Your task to perform on an android device: Open Amazon Image 0: 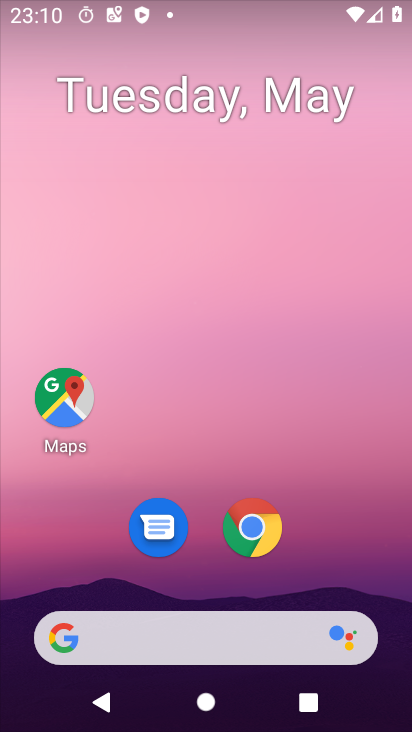
Step 0: click (290, 284)
Your task to perform on an android device: Open Amazon Image 1: 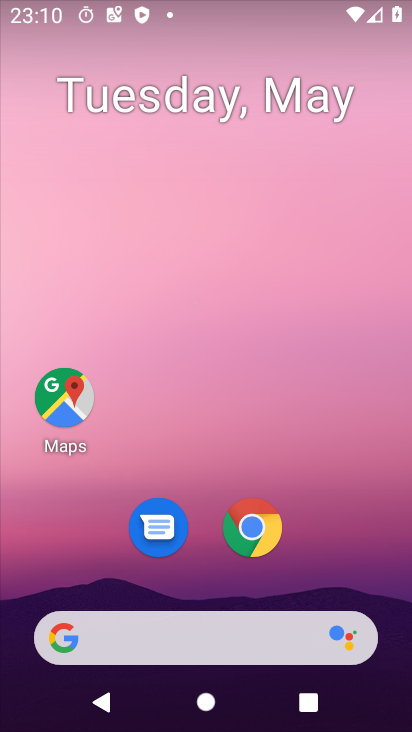
Step 1: drag from (215, 585) to (215, 152)
Your task to perform on an android device: Open Amazon Image 2: 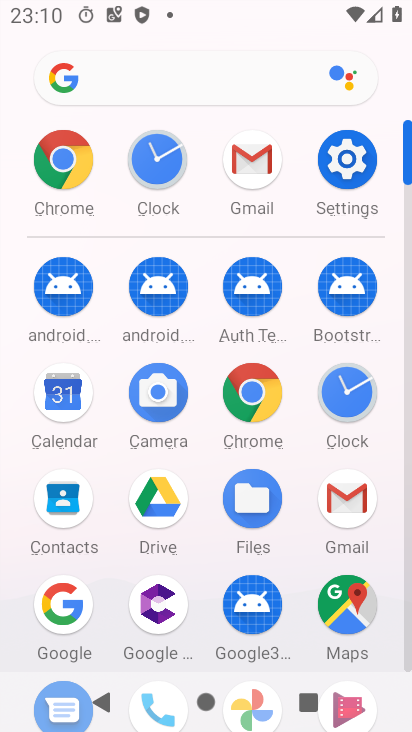
Step 2: click (157, 80)
Your task to perform on an android device: Open Amazon Image 3: 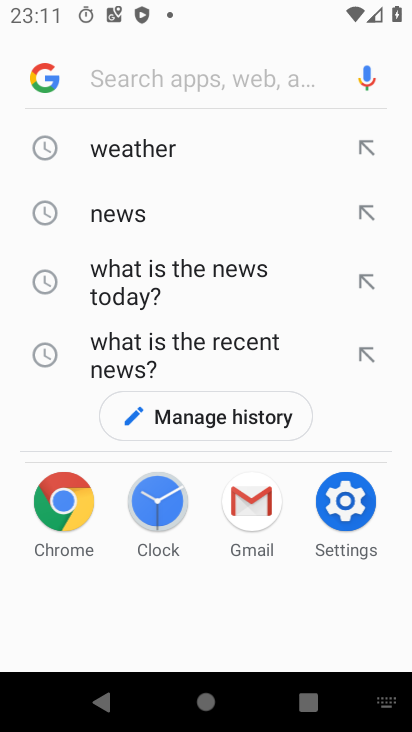
Step 3: type "amazon"
Your task to perform on an android device: Open Amazon Image 4: 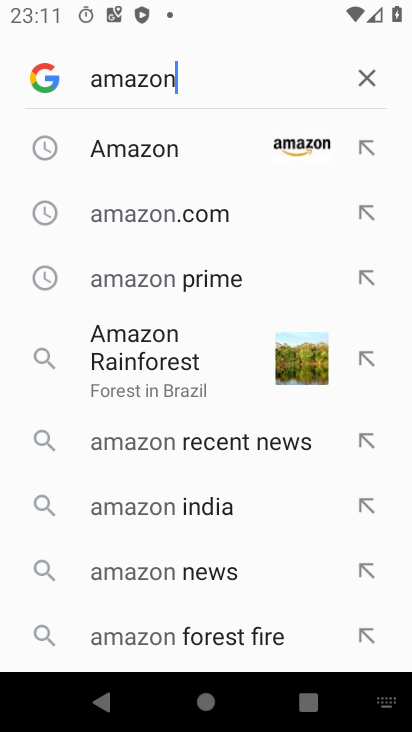
Step 4: click (139, 135)
Your task to perform on an android device: Open Amazon Image 5: 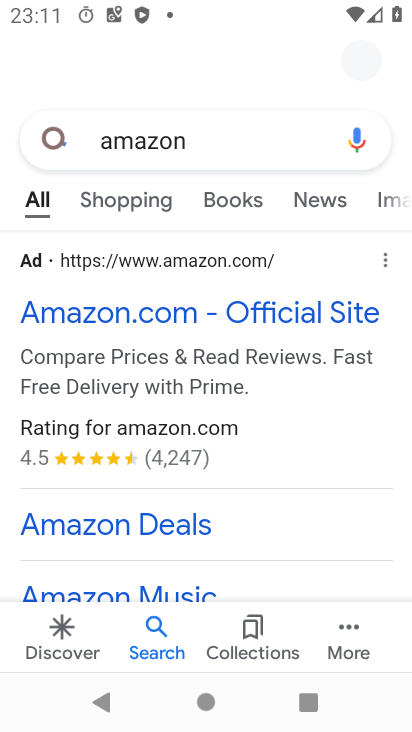
Step 5: drag from (129, 561) to (246, 119)
Your task to perform on an android device: Open Amazon Image 6: 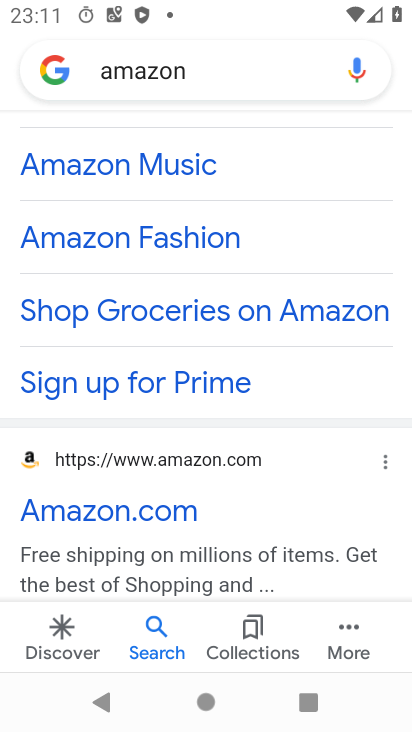
Step 6: drag from (207, 537) to (343, 206)
Your task to perform on an android device: Open Amazon Image 7: 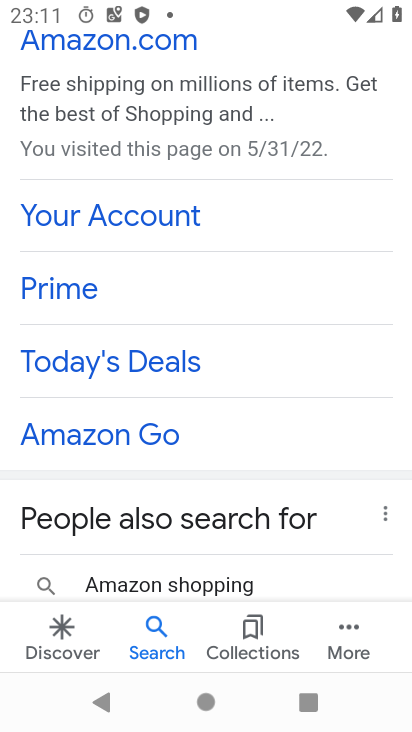
Step 7: click (93, 31)
Your task to perform on an android device: Open Amazon Image 8: 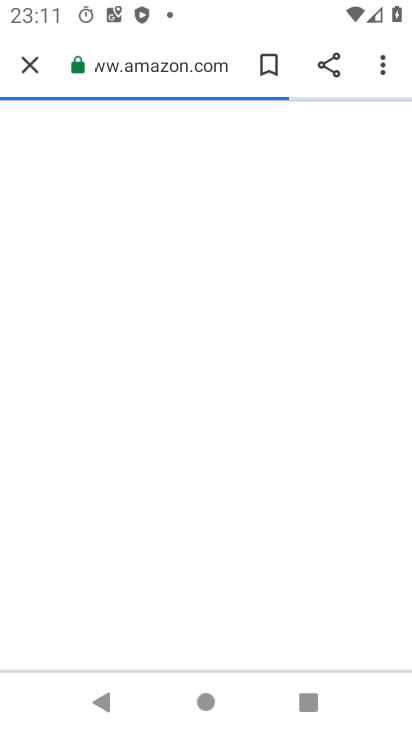
Step 8: task complete